Your task to perform on an android device: Open internet settings Image 0: 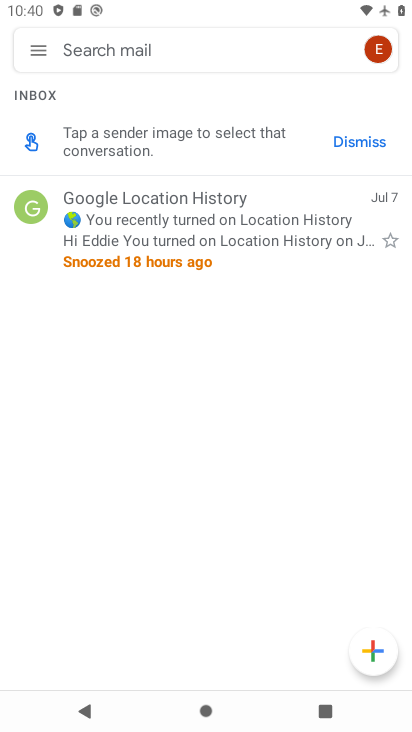
Step 0: press home button
Your task to perform on an android device: Open internet settings Image 1: 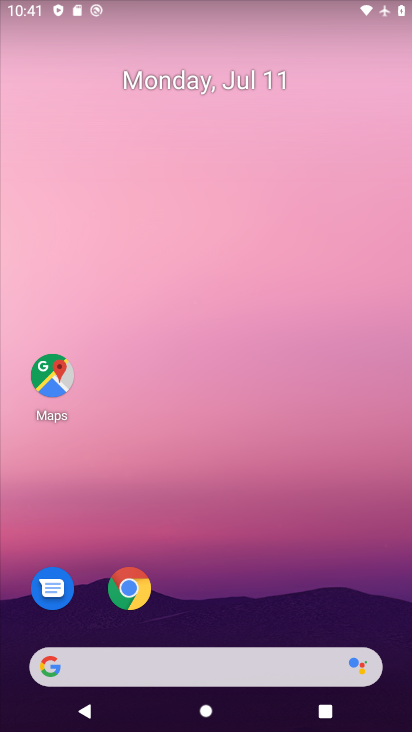
Step 1: drag from (157, 659) to (316, 124)
Your task to perform on an android device: Open internet settings Image 2: 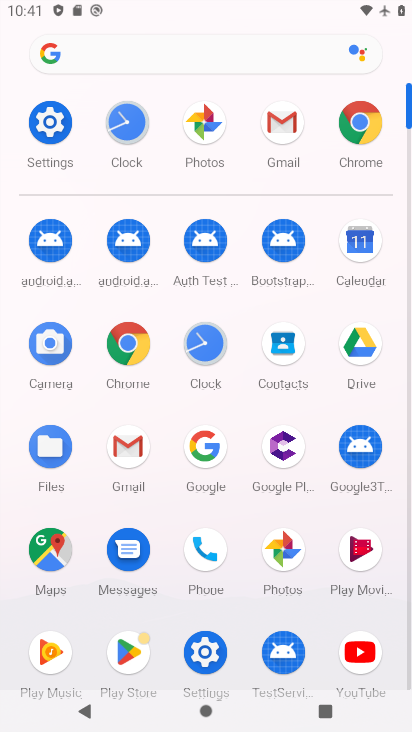
Step 2: click (37, 117)
Your task to perform on an android device: Open internet settings Image 3: 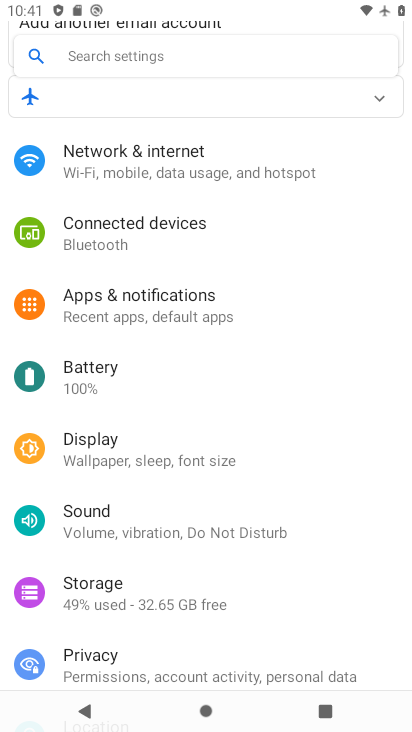
Step 3: click (171, 165)
Your task to perform on an android device: Open internet settings Image 4: 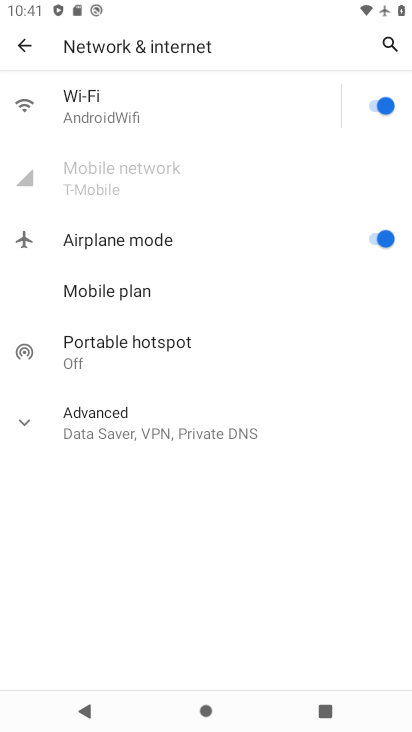
Step 4: task complete